Your task to perform on an android device: check out phone information Image 0: 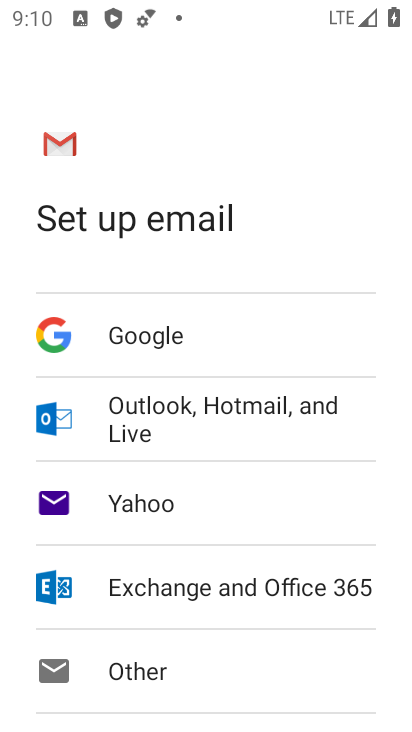
Step 0: press home button
Your task to perform on an android device: check out phone information Image 1: 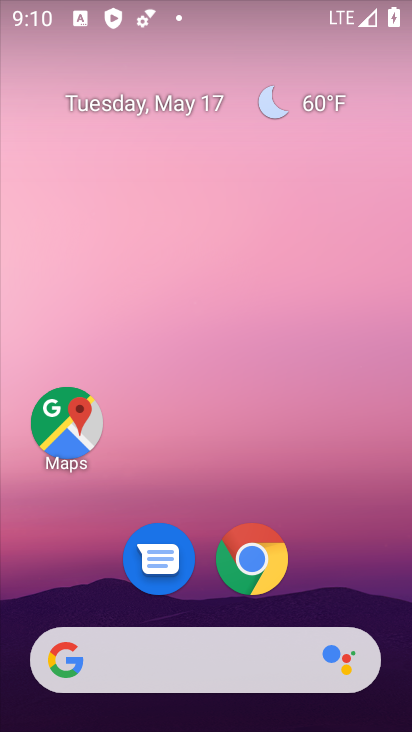
Step 1: drag from (201, 602) to (199, 186)
Your task to perform on an android device: check out phone information Image 2: 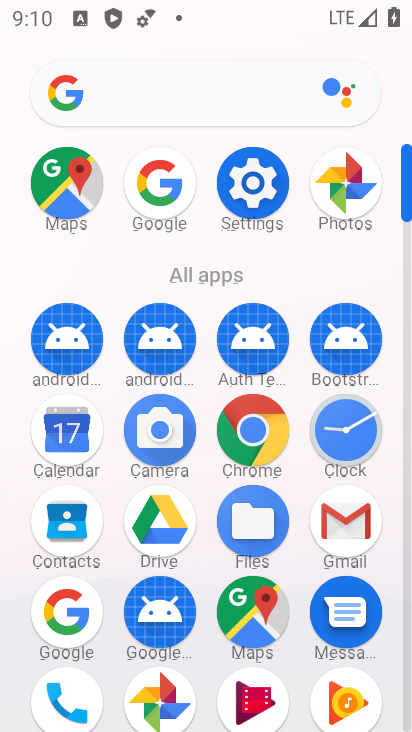
Step 2: click (253, 183)
Your task to perform on an android device: check out phone information Image 3: 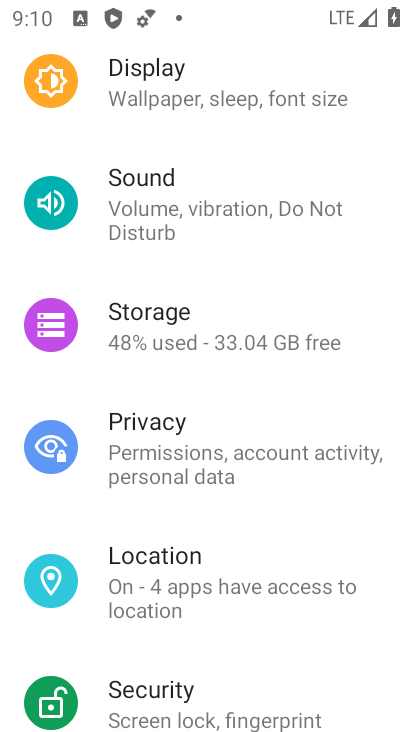
Step 3: drag from (154, 614) to (172, 338)
Your task to perform on an android device: check out phone information Image 4: 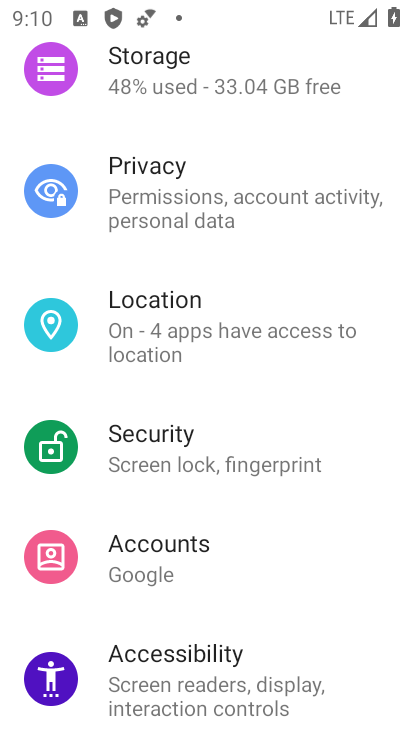
Step 4: drag from (201, 584) to (198, 308)
Your task to perform on an android device: check out phone information Image 5: 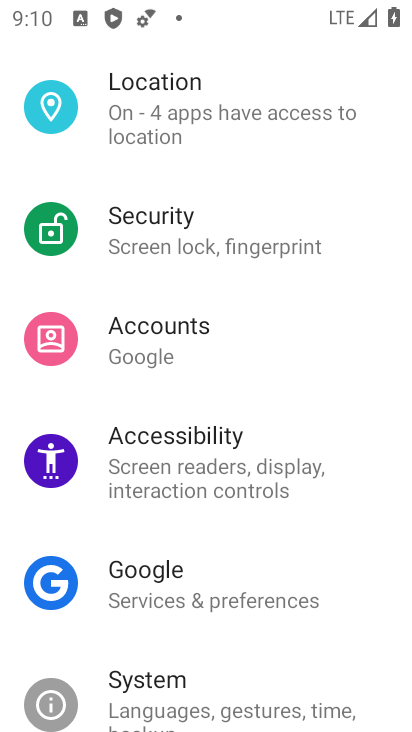
Step 5: drag from (206, 575) to (221, 300)
Your task to perform on an android device: check out phone information Image 6: 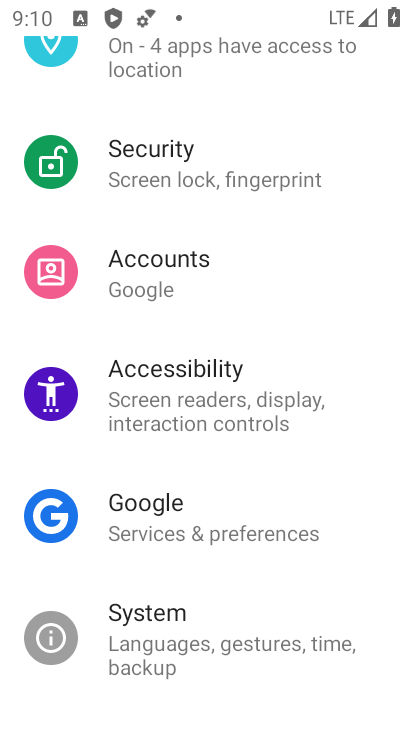
Step 6: drag from (210, 665) to (221, 372)
Your task to perform on an android device: check out phone information Image 7: 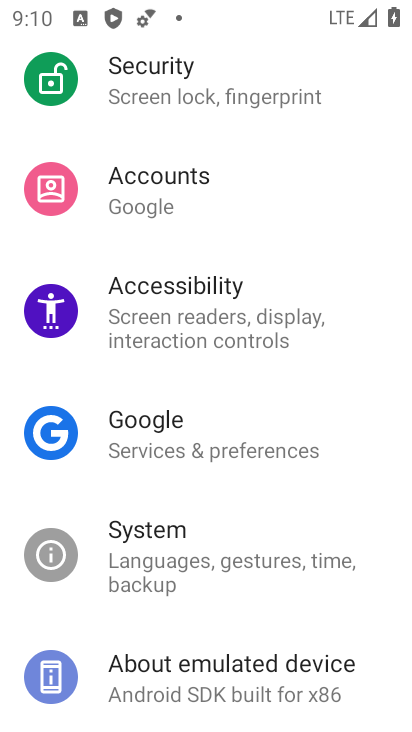
Step 7: click (191, 665)
Your task to perform on an android device: check out phone information Image 8: 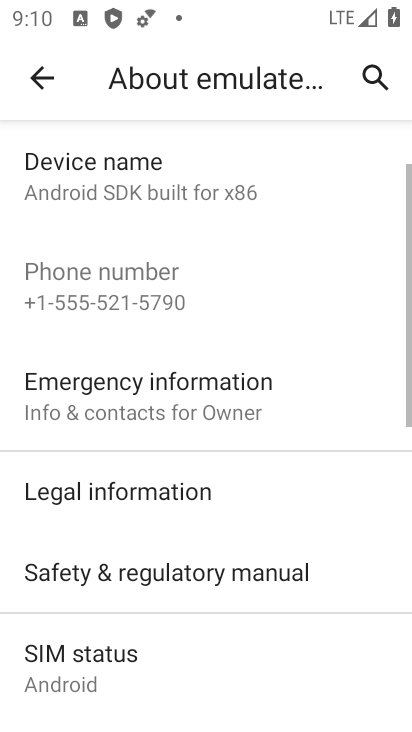
Step 8: task complete